Your task to perform on an android device: Go to accessibility settings Image 0: 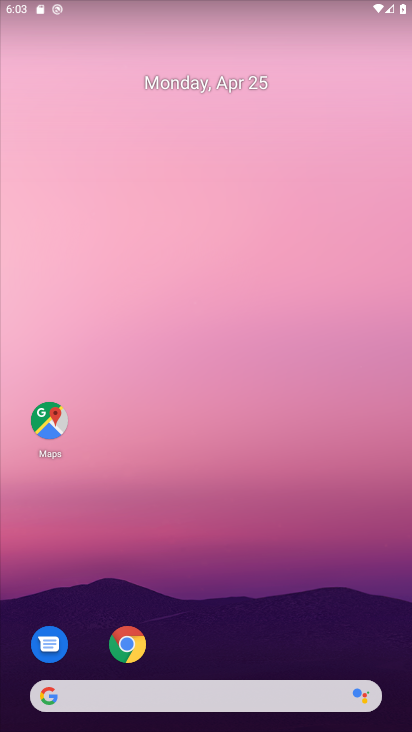
Step 0: drag from (279, 632) to (274, 71)
Your task to perform on an android device: Go to accessibility settings Image 1: 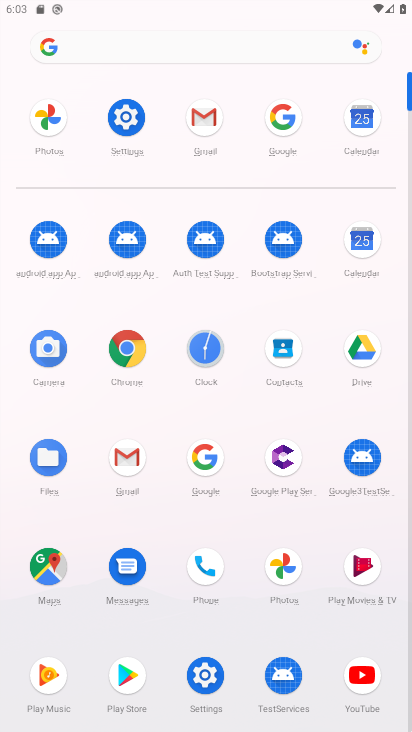
Step 1: click (117, 124)
Your task to perform on an android device: Go to accessibility settings Image 2: 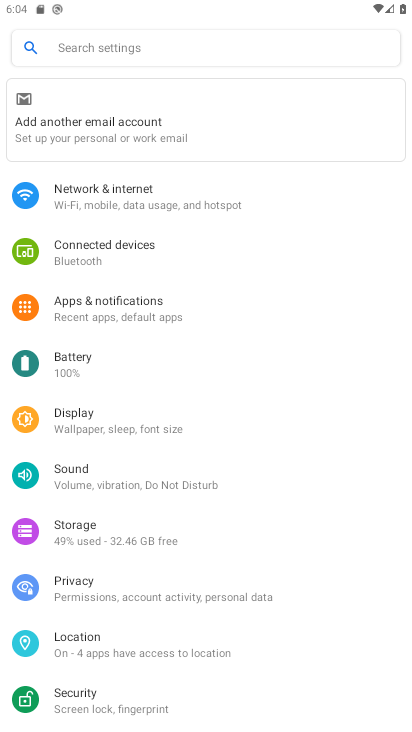
Step 2: drag from (258, 649) to (253, 203)
Your task to perform on an android device: Go to accessibility settings Image 3: 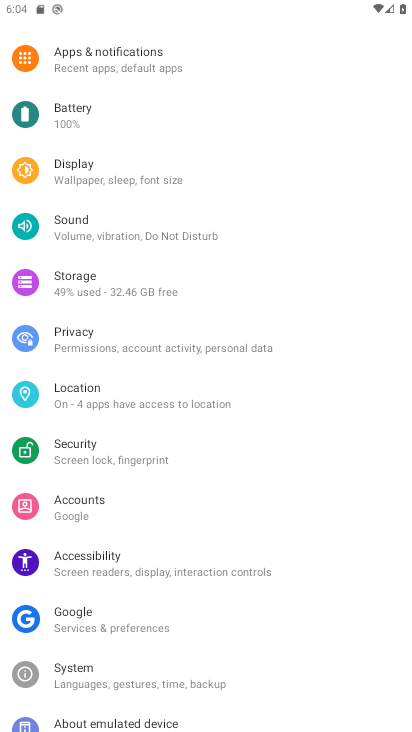
Step 3: click (177, 548)
Your task to perform on an android device: Go to accessibility settings Image 4: 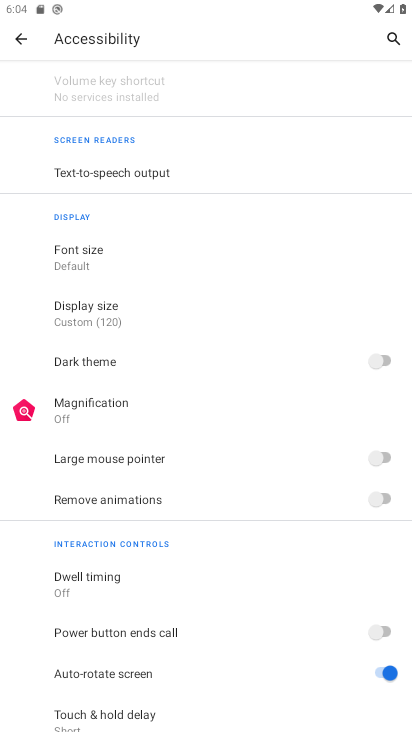
Step 4: task complete